Your task to perform on an android device: Empty the shopping cart on ebay. Search for energizer triple a on ebay, select the first entry, add it to the cart, then select checkout. Image 0: 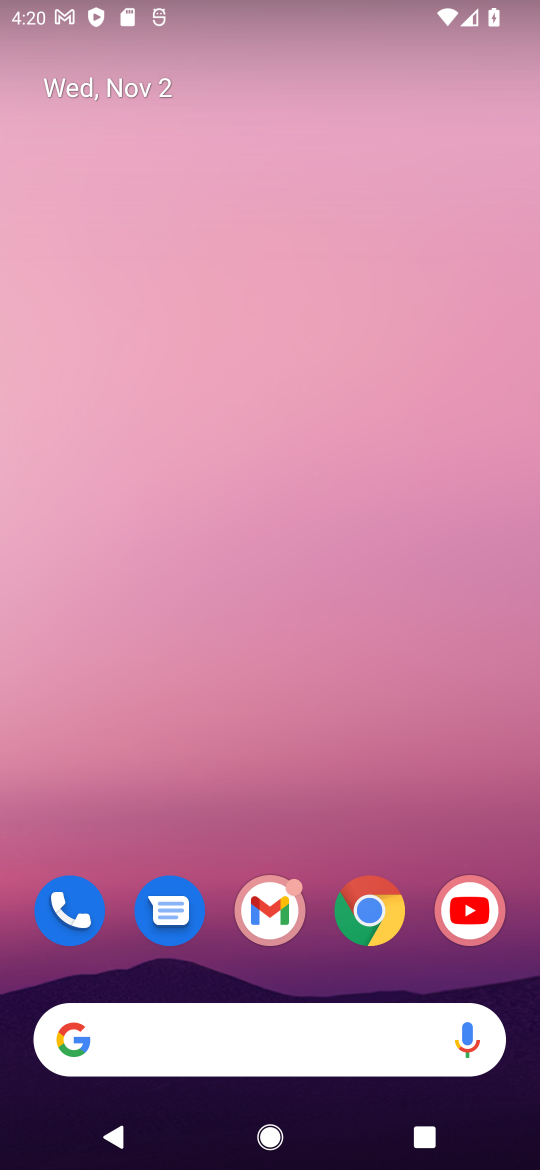
Step 0: click (371, 919)
Your task to perform on an android device: Empty the shopping cart on ebay. Search for energizer triple a on ebay, select the first entry, add it to the cart, then select checkout. Image 1: 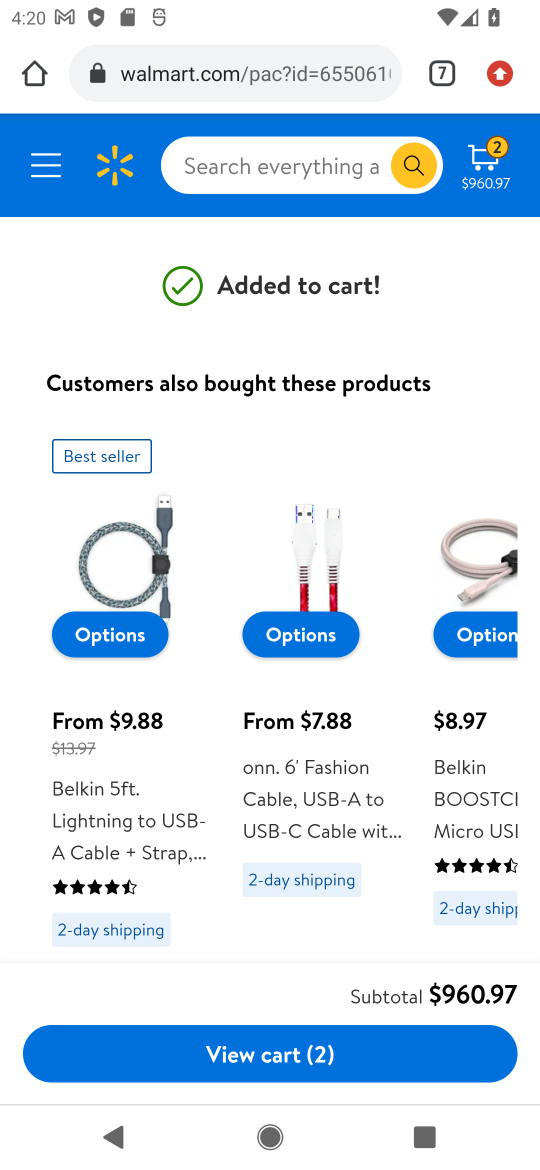
Step 1: click (448, 70)
Your task to perform on an android device: Empty the shopping cart on ebay. Search for energizer triple a on ebay, select the first entry, add it to the cart, then select checkout. Image 2: 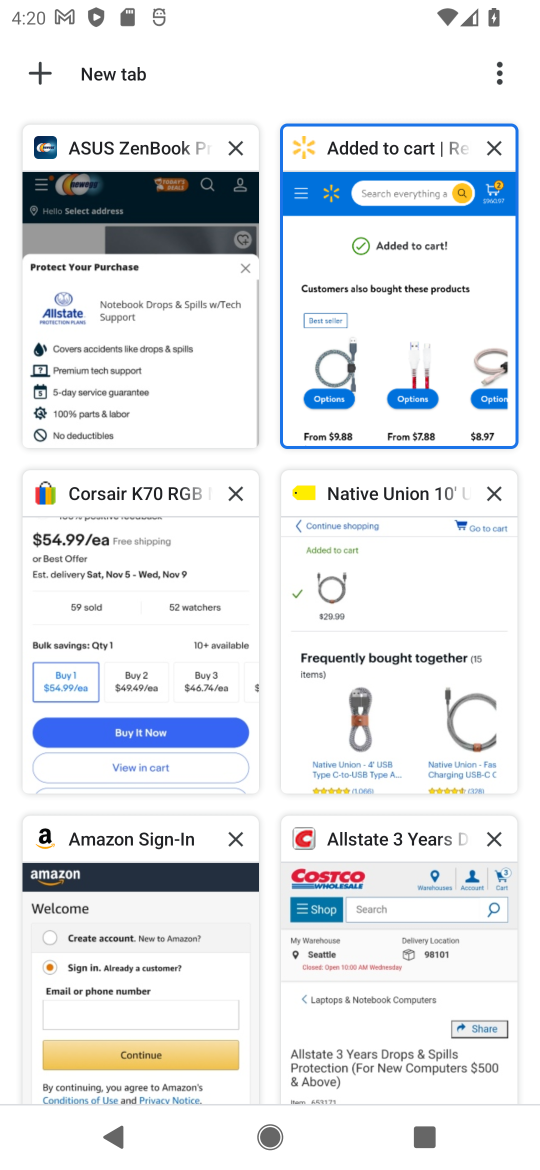
Step 2: click (157, 627)
Your task to perform on an android device: Empty the shopping cart on ebay. Search for energizer triple a on ebay, select the first entry, add it to the cart, then select checkout. Image 3: 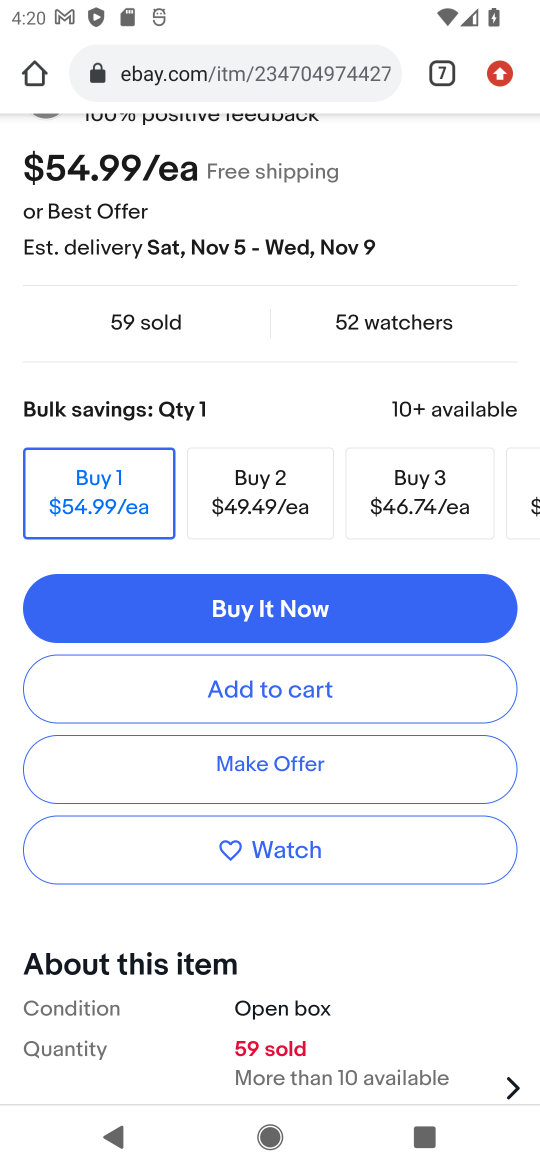
Step 3: drag from (479, 196) to (284, 1137)
Your task to perform on an android device: Empty the shopping cart on ebay. Search for energizer triple a on ebay, select the first entry, add it to the cart, then select checkout. Image 4: 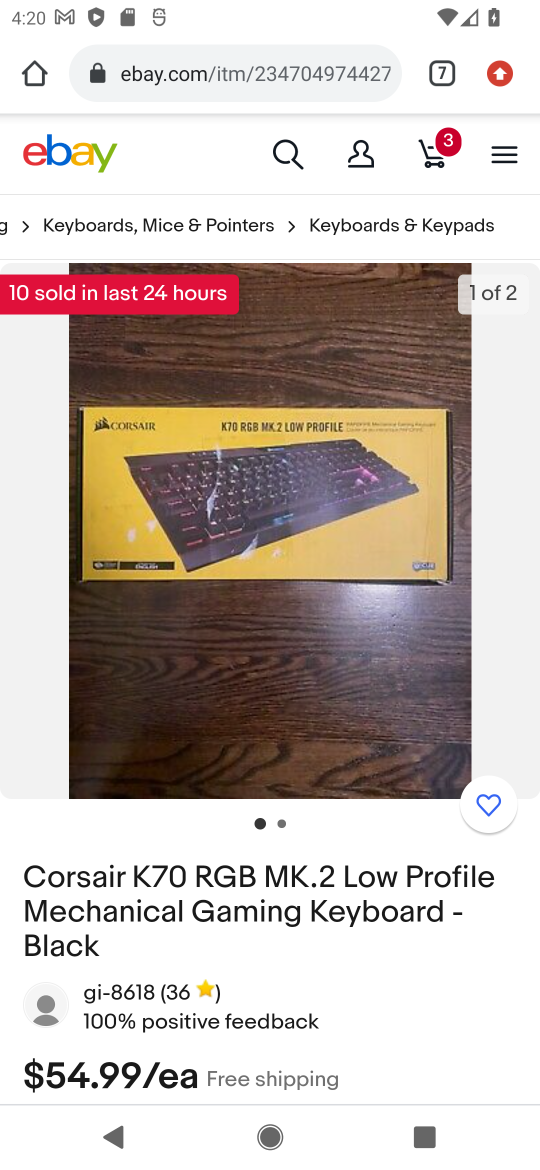
Step 4: click (446, 148)
Your task to perform on an android device: Empty the shopping cart on ebay. Search for energizer triple a on ebay, select the first entry, add it to the cart, then select checkout. Image 5: 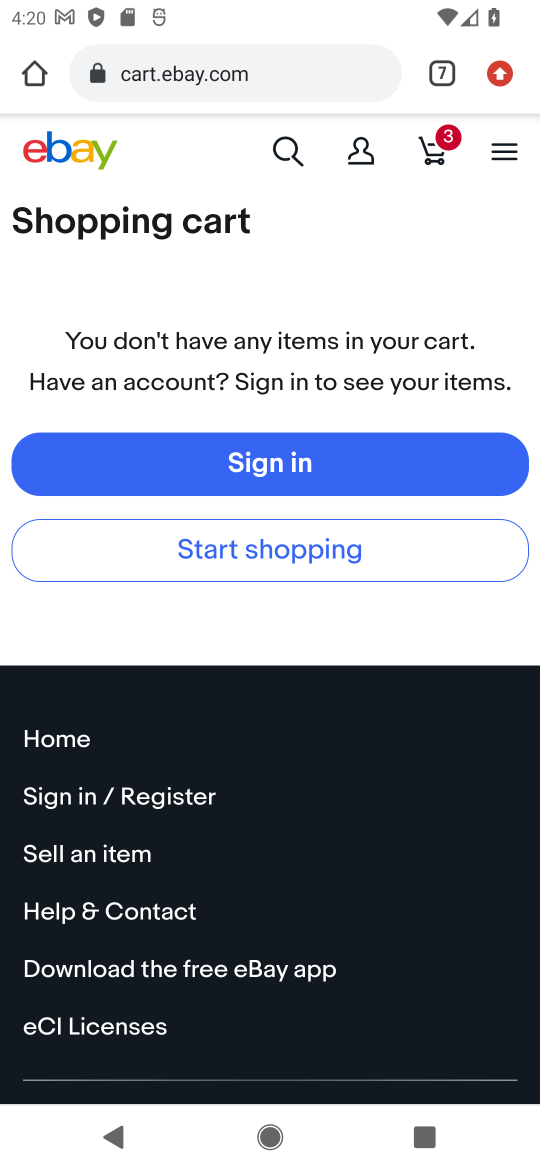
Step 5: click (283, 150)
Your task to perform on an android device: Empty the shopping cart on ebay. Search for energizer triple a on ebay, select the first entry, add it to the cart, then select checkout. Image 6: 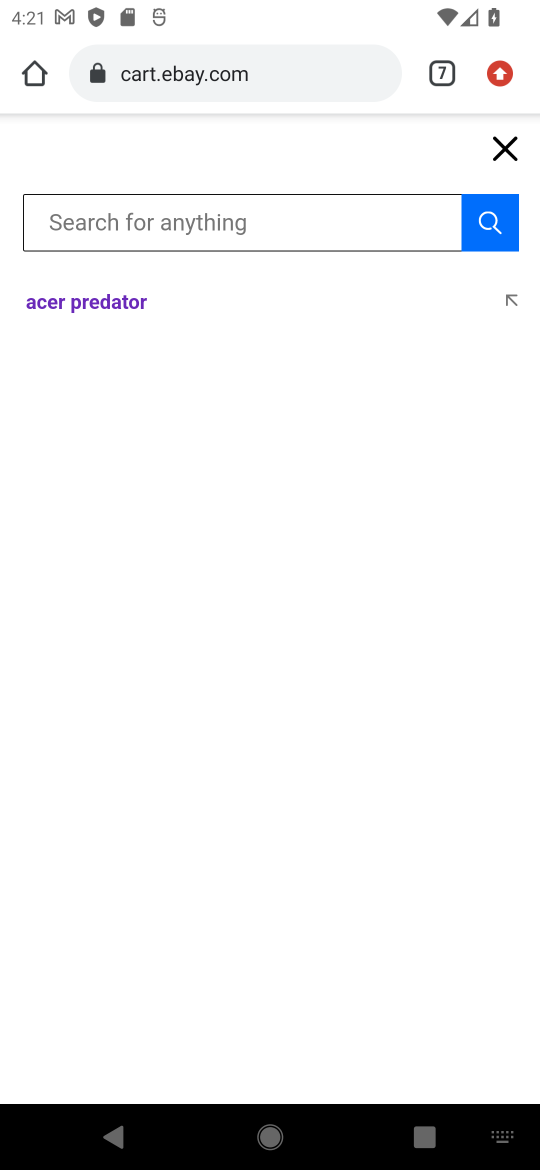
Step 6: type "energizer triple a "
Your task to perform on an android device: Empty the shopping cart on ebay. Search for energizer triple a on ebay, select the first entry, add it to the cart, then select checkout. Image 7: 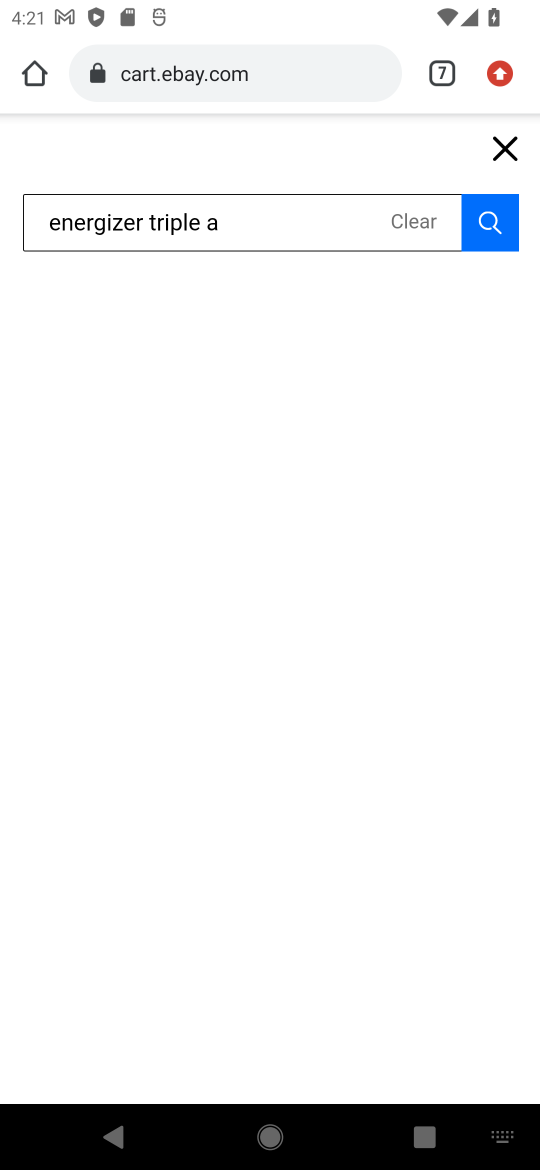
Step 7: type "battery"
Your task to perform on an android device: Empty the shopping cart on ebay. Search for energizer triple a on ebay, select the first entry, add it to the cart, then select checkout. Image 8: 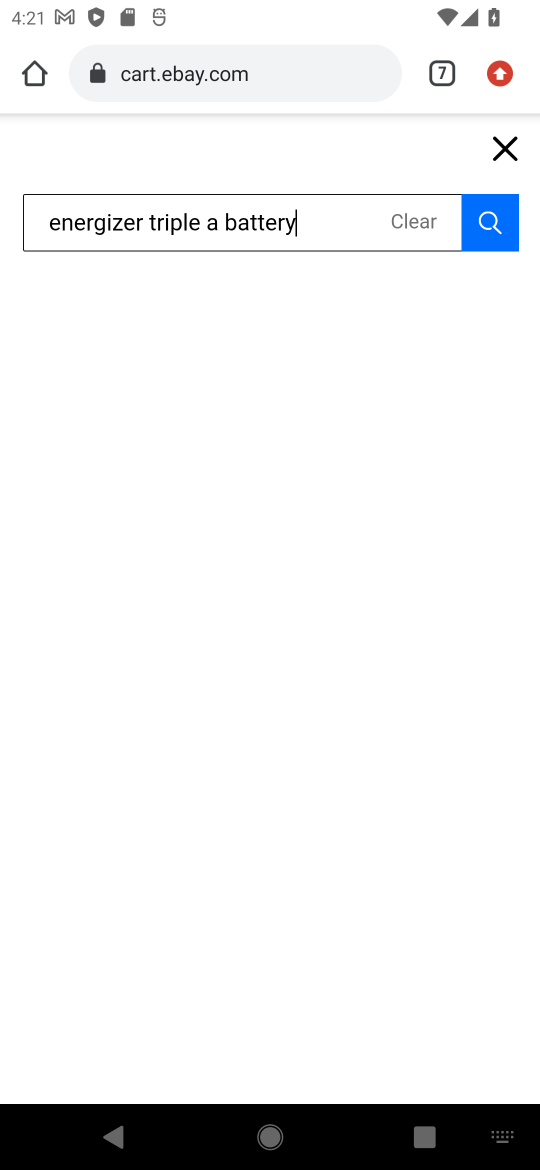
Step 8: click (499, 234)
Your task to perform on an android device: Empty the shopping cart on ebay. Search for energizer triple a on ebay, select the first entry, add it to the cart, then select checkout. Image 9: 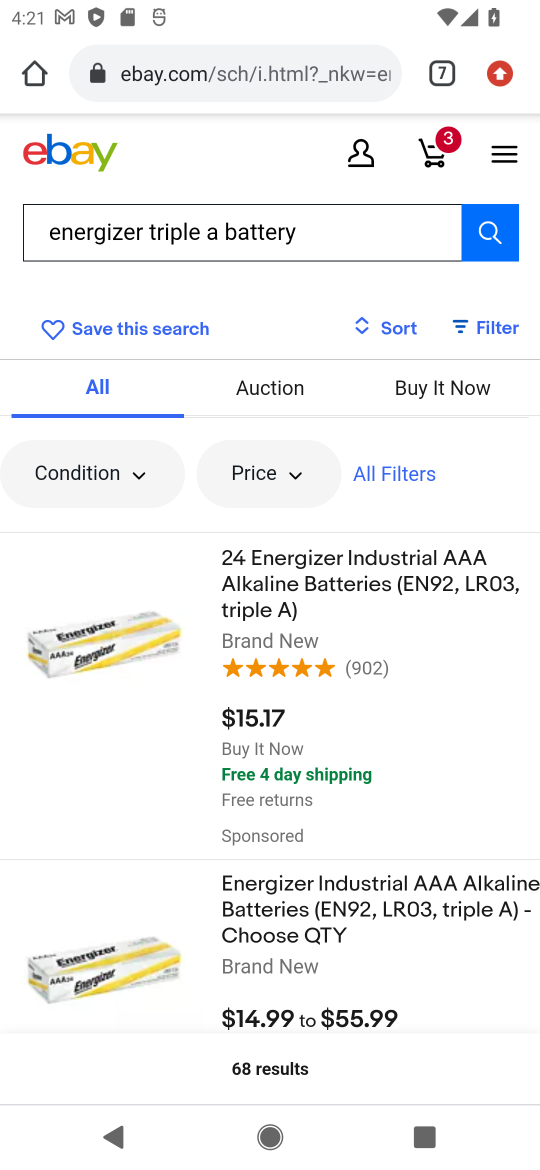
Step 9: click (427, 720)
Your task to perform on an android device: Empty the shopping cart on ebay. Search for energizer triple a on ebay, select the first entry, add it to the cart, then select checkout. Image 10: 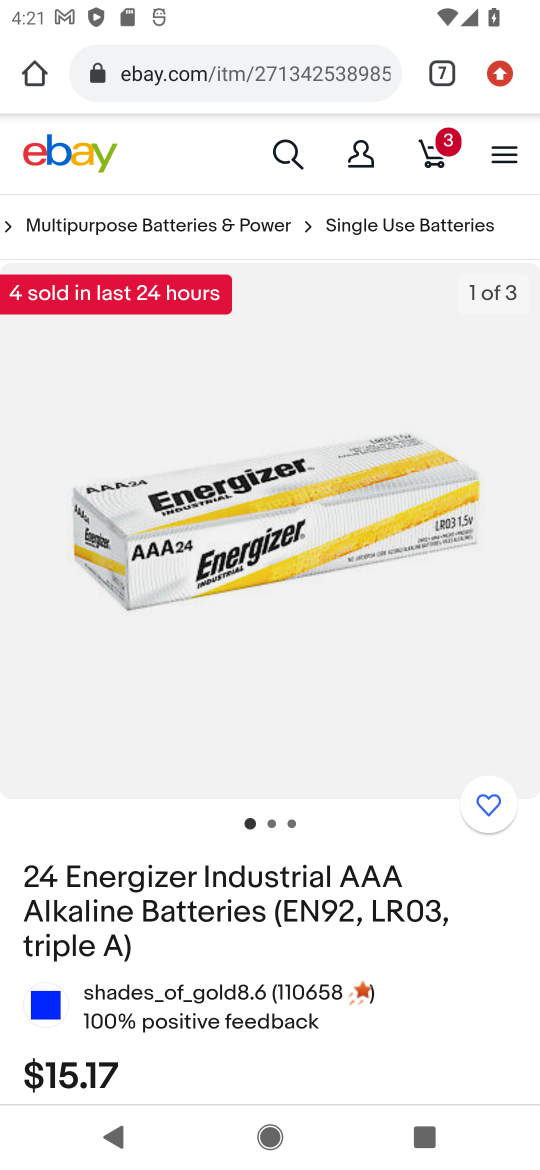
Step 10: drag from (313, 997) to (429, 178)
Your task to perform on an android device: Empty the shopping cart on ebay. Search for energizer triple a on ebay, select the first entry, add it to the cart, then select checkout. Image 11: 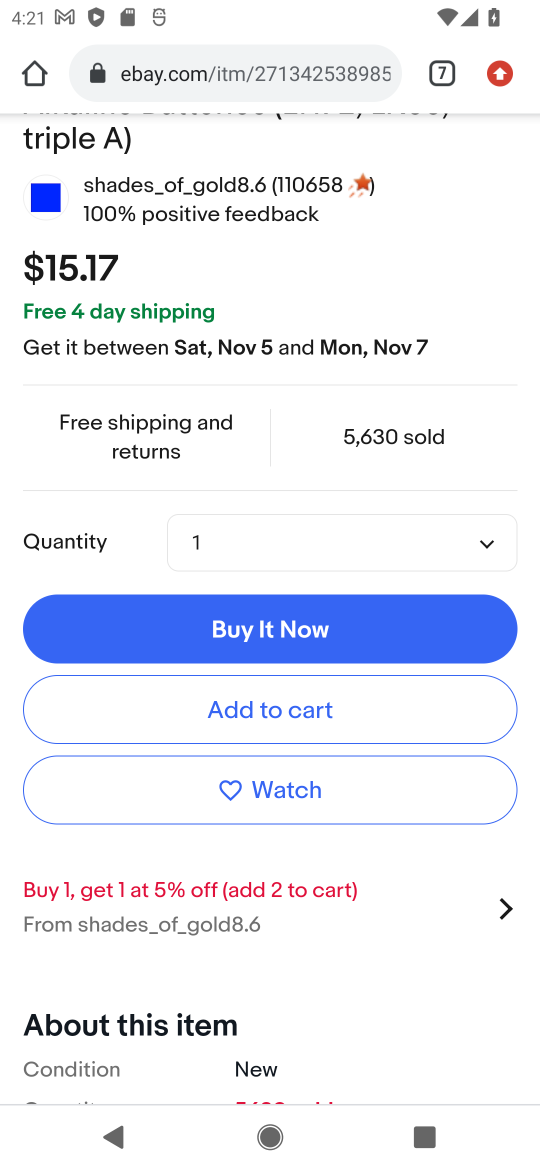
Step 11: click (274, 712)
Your task to perform on an android device: Empty the shopping cart on ebay. Search for energizer triple a on ebay, select the first entry, add it to the cart, then select checkout. Image 12: 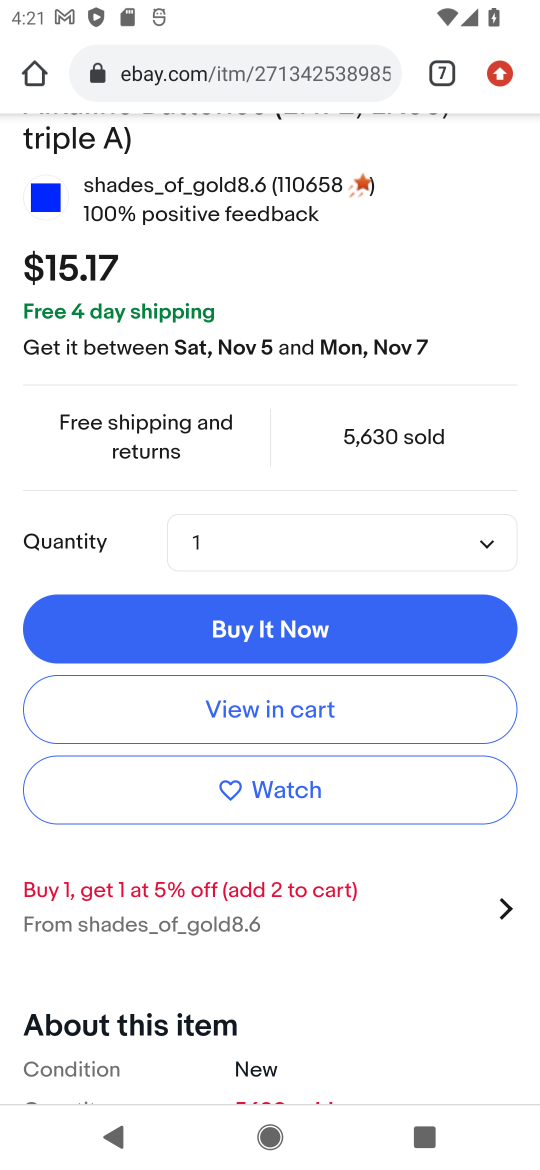
Step 12: task complete